Your task to perform on an android device: change the clock style Image 0: 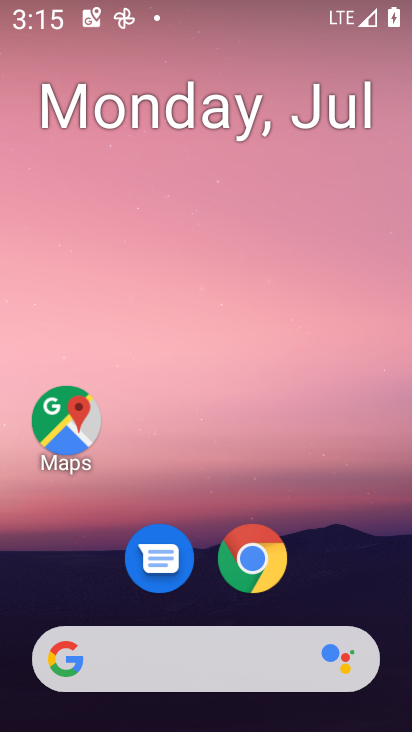
Step 0: drag from (352, 576) to (353, 83)
Your task to perform on an android device: change the clock style Image 1: 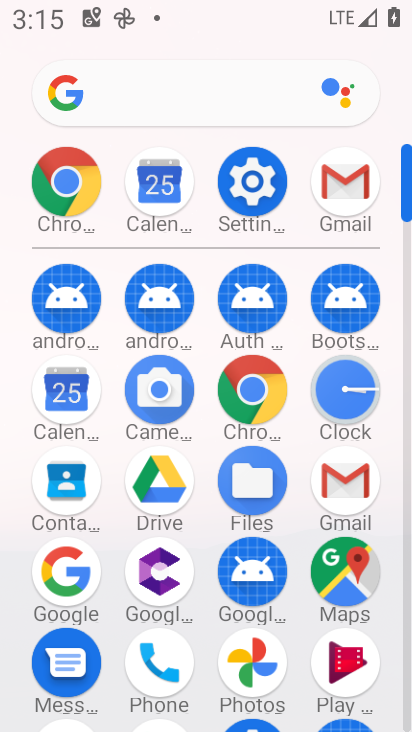
Step 1: click (350, 394)
Your task to perform on an android device: change the clock style Image 2: 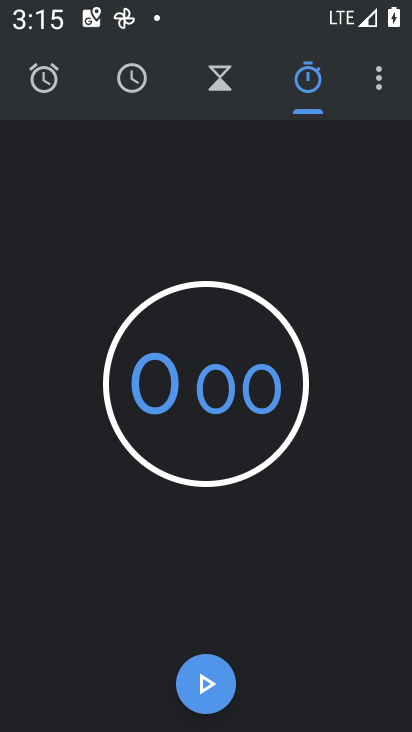
Step 2: click (376, 78)
Your task to perform on an android device: change the clock style Image 3: 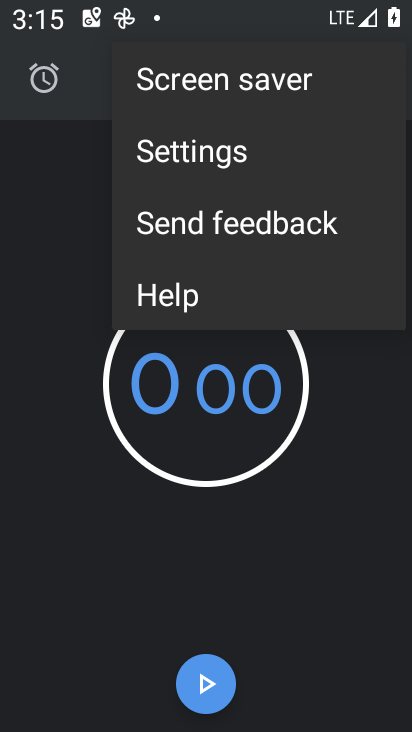
Step 3: click (244, 164)
Your task to perform on an android device: change the clock style Image 4: 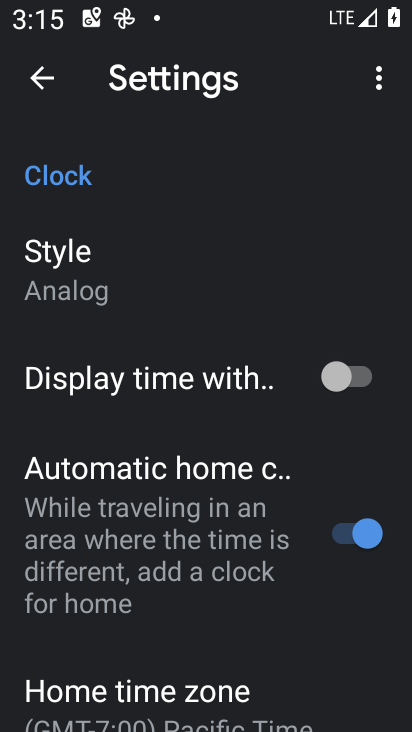
Step 4: drag from (252, 605) to (244, 478)
Your task to perform on an android device: change the clock style Image 5: 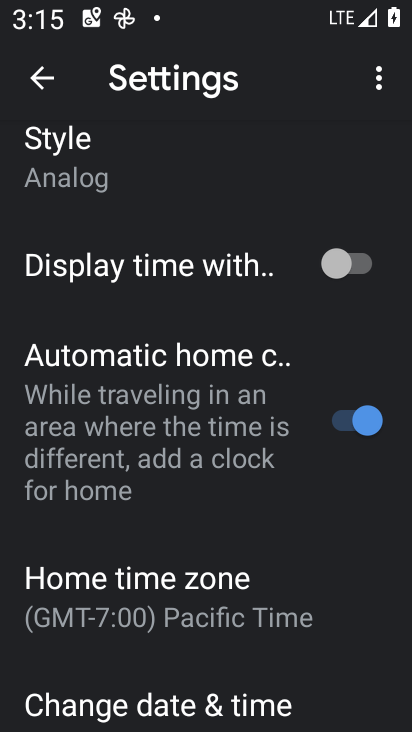
Step 5: click (99, 176)
Your task to perform on an android device: change the clock style Image 6: 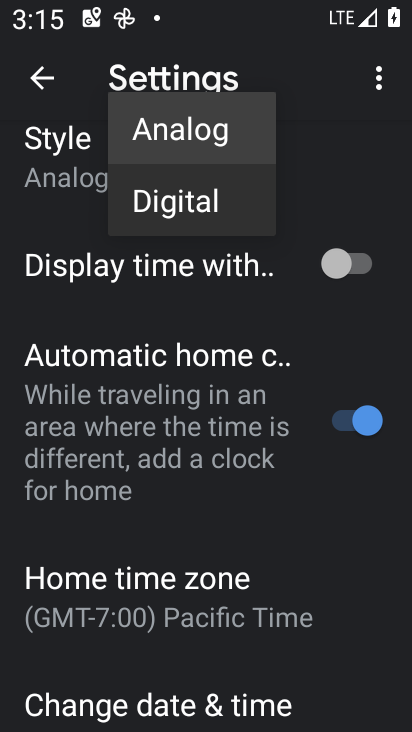
Step 6: click (188, 203)
Your task to perform on an android device: change the clock style Image 7: 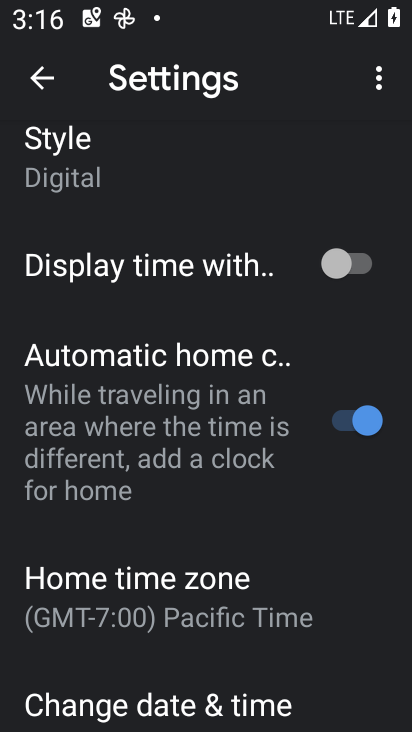
Step 7: task complete